Your task to perform on an android device: Go to location settings Image 0: 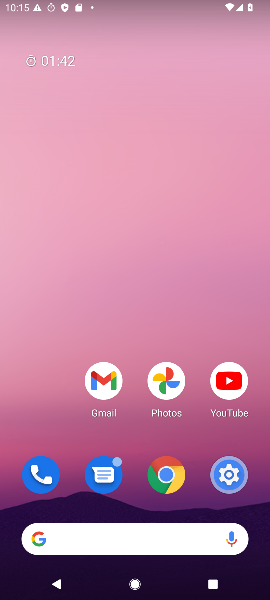
Step 0: drag from (94, 178) to (108, 133)
Your task to perform on an android device: Go to location settings Image 1: 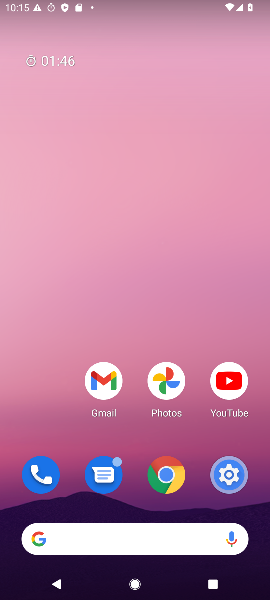
Step 1: drag from (131, 392) to (175, 28)
Your task to perform on an android device: Go to location settings Image 2: 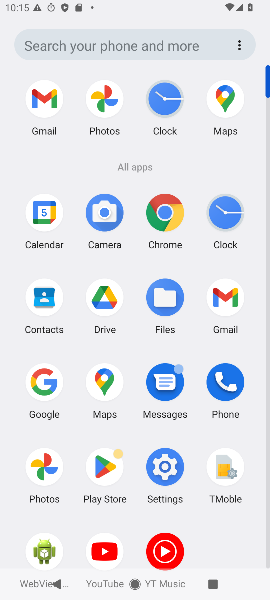
Step 2: click (167, 482)
Your task to perform on an android device: Go to location settings Image 3: 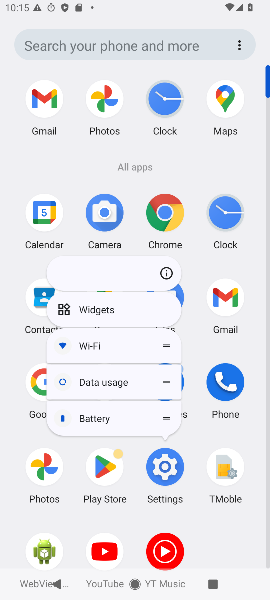
Step 3: click (170, 482)
Your task to perform on an android device: Go to location settings Image 4: 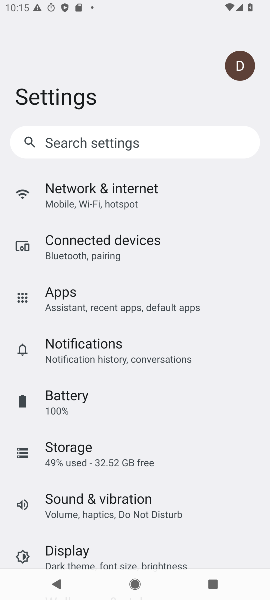
Step 4: click (168, 481)
Your task to perform on an android device: Go to location settings Image 5: 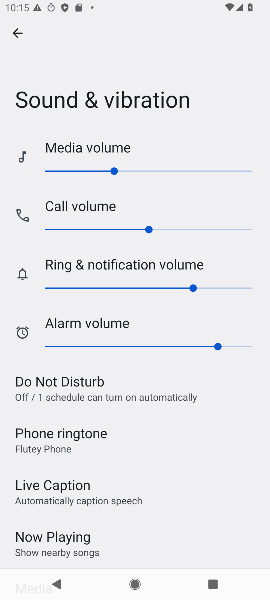
Step 5: click (14, 30)
Your task to perform on an android device: Go to location settings Image 6: 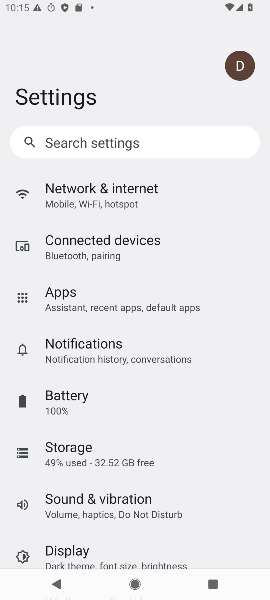
Step 6: drag from (127, 538) to (171, 144)
Your task to perform on an android device: Go to location settings Image 7: 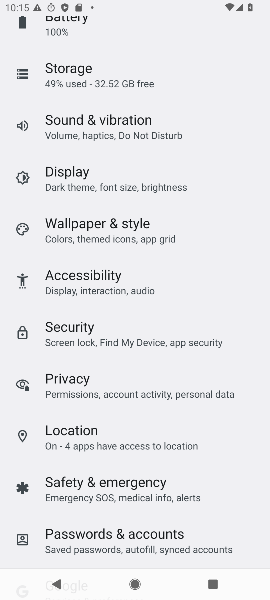
Step 7: click (94, 436)
Your task to perform on an android device: Go to location settings Image 8: 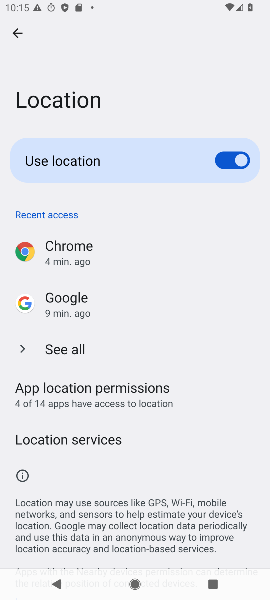
Step 8: task complete